Your task to perform on an android device: Is it going to rain tomorrow? Image 0: 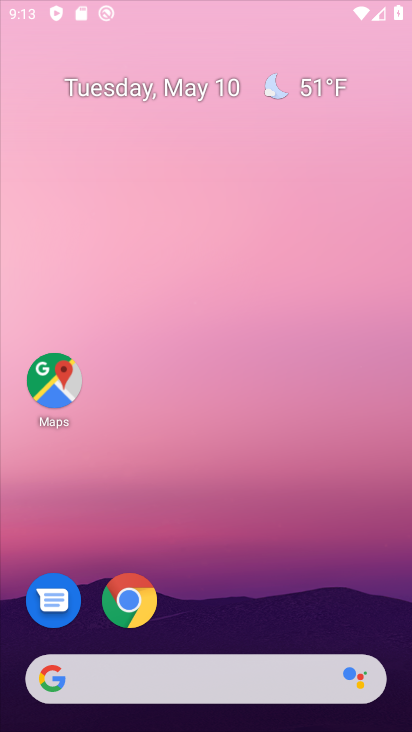
Step 0: click (351, 211)
Your task to perform on an android device: Is it going to rain tomorrow? Image 1: 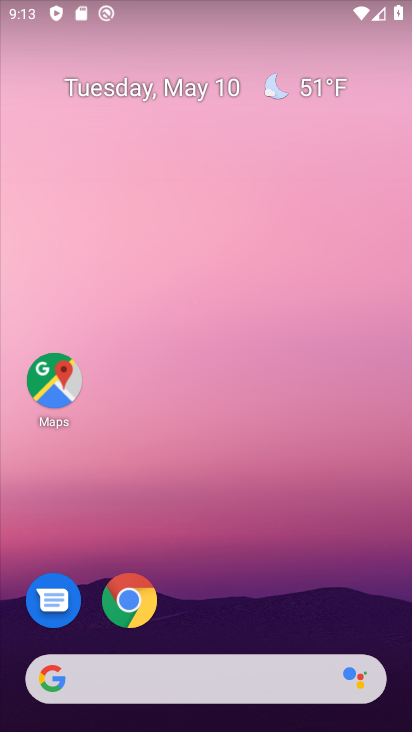
Step 1: click (298, 88)
Your task to perform on an android device: Is it going to rain tomorrow? Image 2: 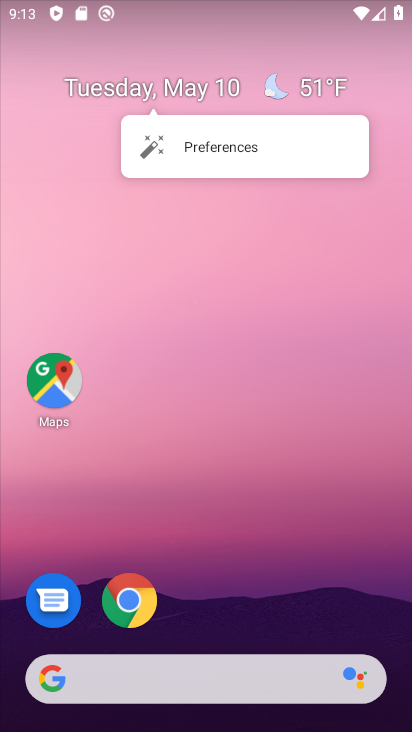
Step 2: click (323, 89)
Your task to perform on an android device: Is it going to rain tomorrow? Image 3: 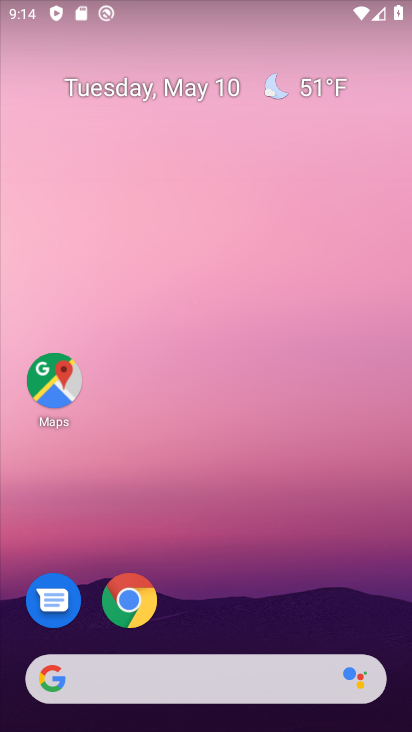
Step 3: click (314, 93)
Your task to perform on an android device: Is it going to rain tomorrow? Image 4: 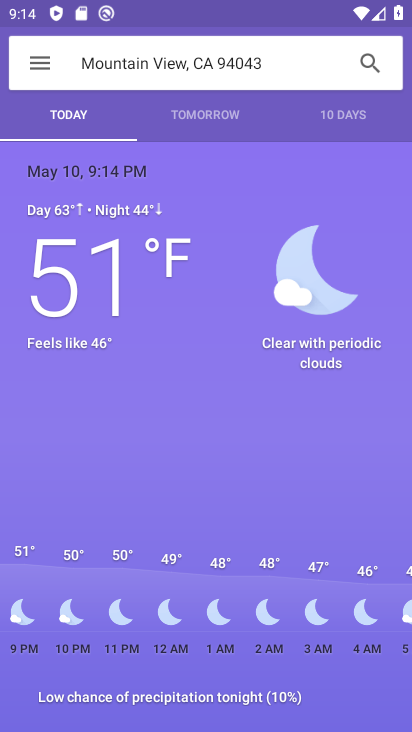
Step 4: click (222, 120)
Your task to perform on an android device: Is it going to rain tomorrow? Image 5: 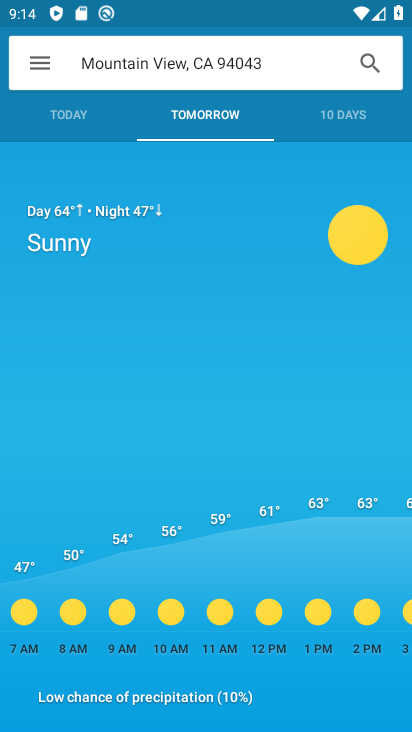
Step 5: task complete